Your task to perform on an android device: toggle notifications settings in the gmail app Image 0: 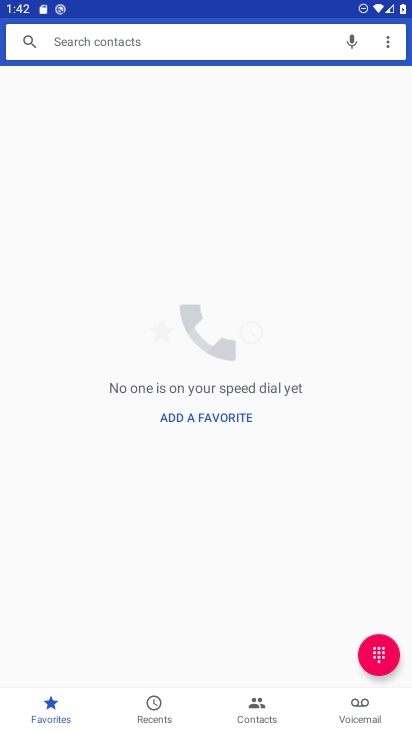
Step 0: press home button
Your task to perform on an android device: toggle notifications settings in the gmail app Image 1: 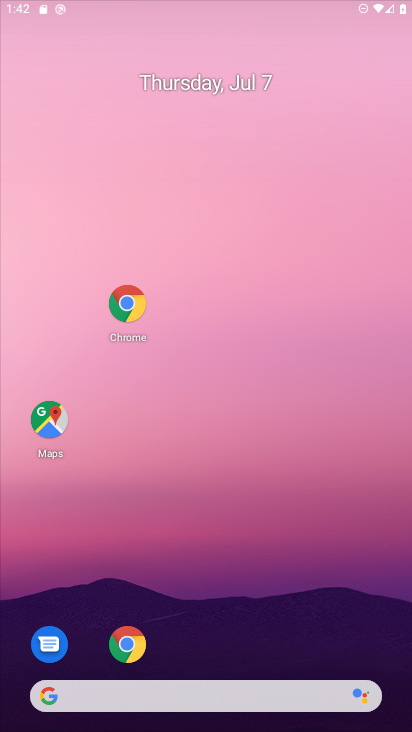
Step 1: drag from (244, 506) to (296, 45)
Your task to perform on an android device: toggle notifications settings in the gmail app Image 2: 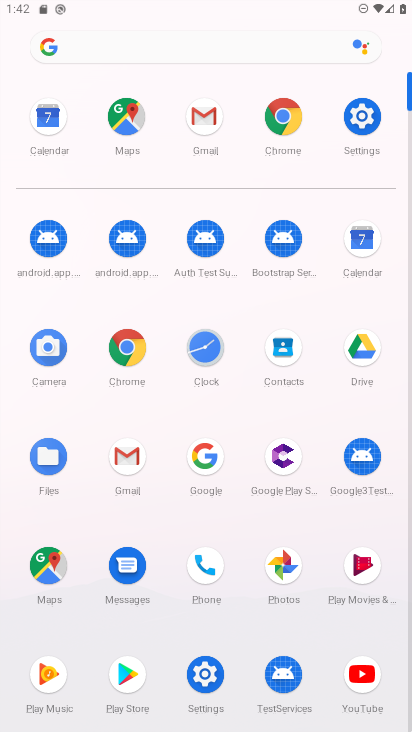
Step 2: click (129, 454)
Your task to perform on an android device: toggle notifications settings in the gmail app Image 3: 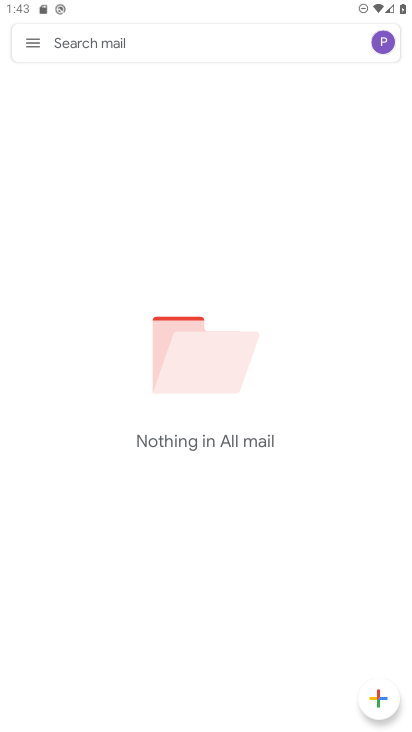
Step 3: click (32, 45)
Your task to perform on an android device: toggle notifications settings in the gmail app Image 4: 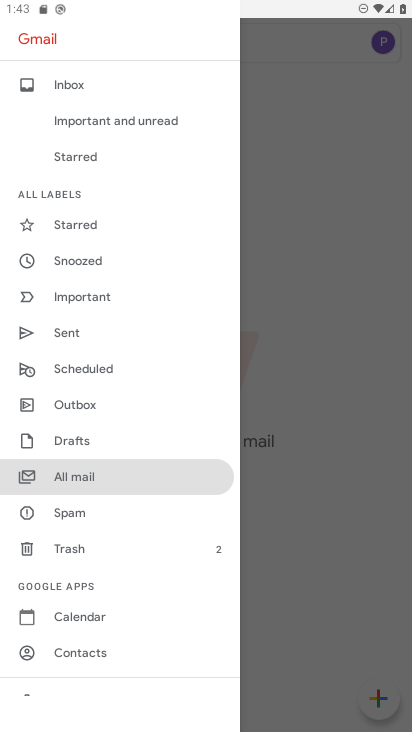
Step 4: drag from (99, 567) to (84, 298)
Your task to perform on an android device: toggle notifications settings in the gmail app Image 5: 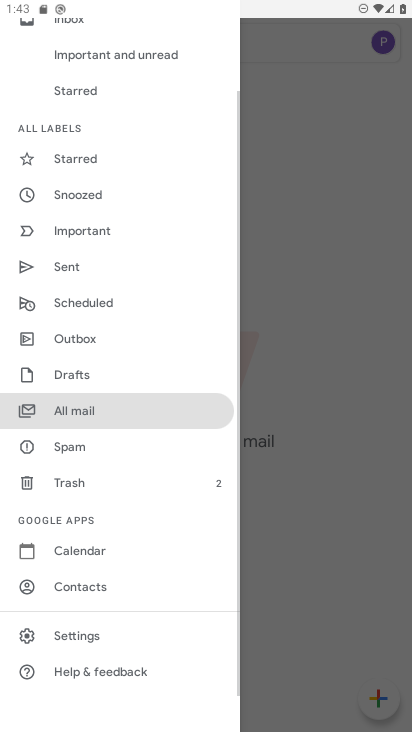
Step 5: click (95, 636)
Your task to perform on an android device: toggle notifications settings in the gmail app Image 6: 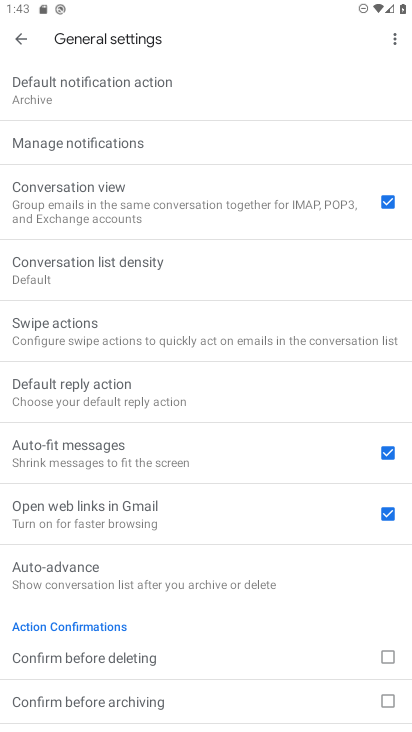
Step 6: drag from (170, 214) to (202, 515)
Your task to perform on an android device: toggle notifications settings in the gmail app Image 7: 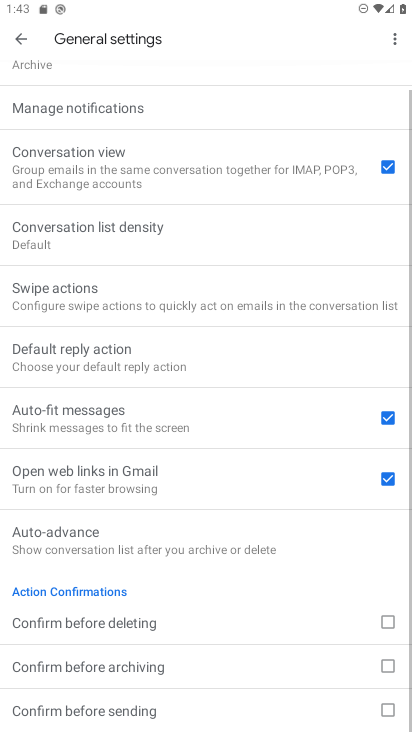
Step 7: click (133, 151)
Your task to perform on an android device: toggle notifications settings in the gmail app Image 8: 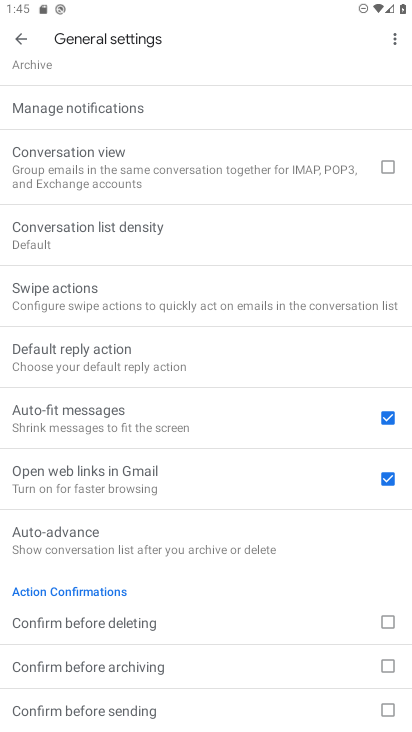
Step 8: click (151, 108)
Your task to perform on an android device: toggle notifications settings in the gmail app Image 9: 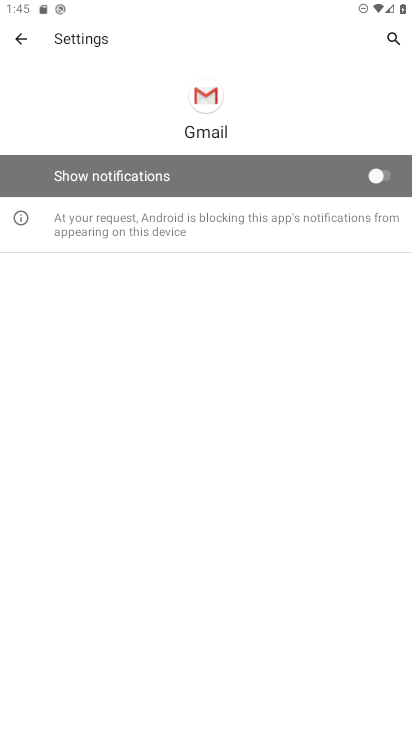
Step 9: click (374, 178)
Your task to perform on an android device: toggle notifications settings in the gmail app Image 10: 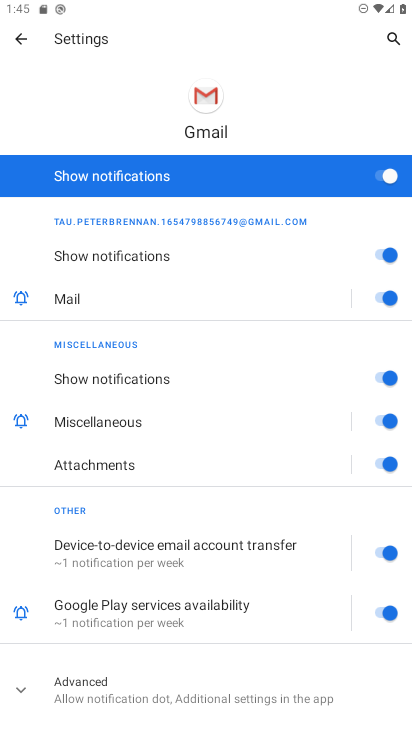
Step 10: task complete